Your task to perform on an android device: change the clock style Image 0: 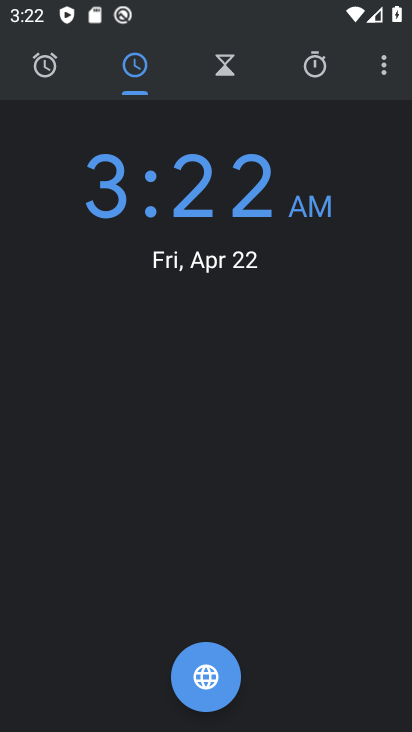
Step 0: click (380, 69)
Your task to perform on an android device: change the clock style Image 1: 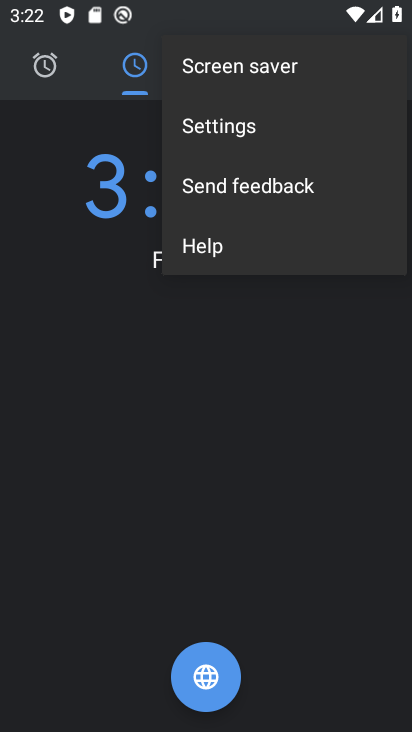
Step 1: click (222, 127)
Your task to perform on an android device: change the clock style Image 2: 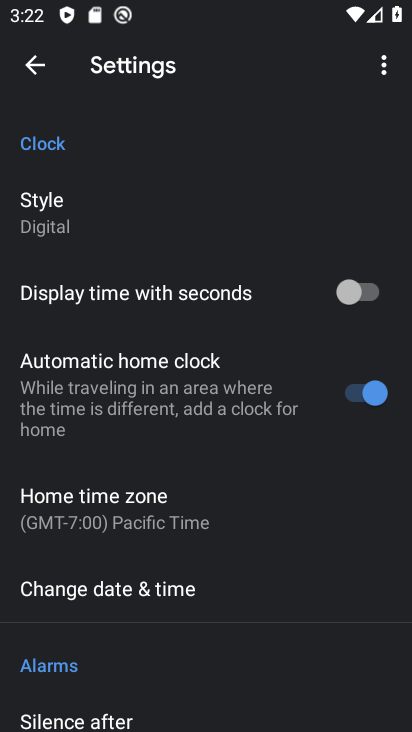
Step 2: click (145, 209)
Your task to perform on an android device: change the clock style Image 3: 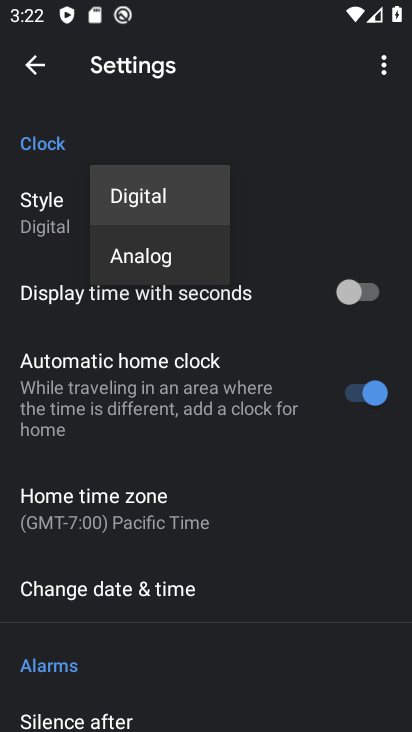
Step 3: click (165, 268)
Your task to perform on an android device: change the clock style Image 4: 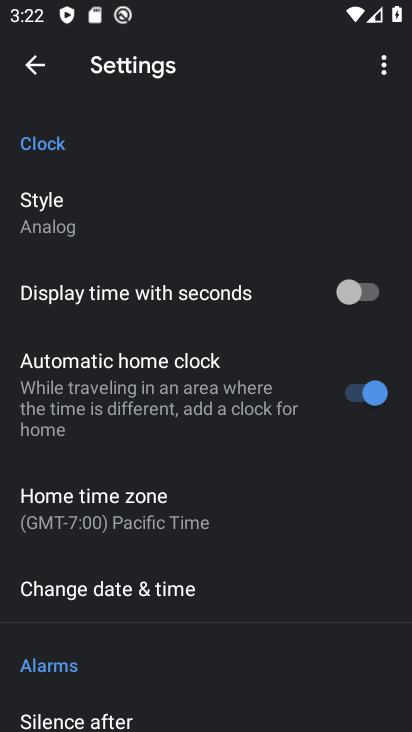
Step 4: task complete